Your task to perform on an android device: see tabs open on other devices in the chrome app Image 0: 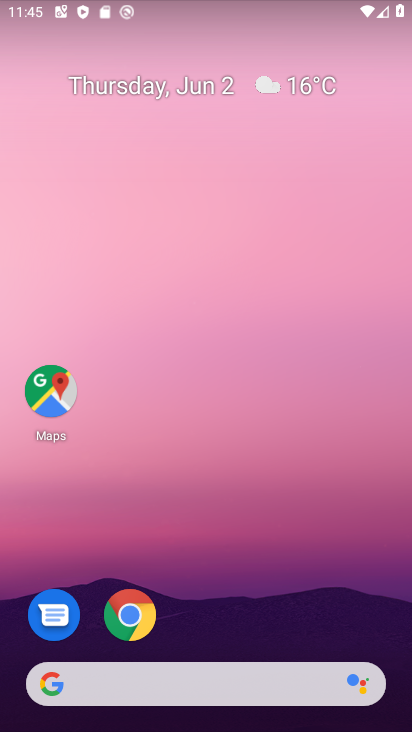
Step 0: drag from (268, 629) to (202, 242)
Your task to perform on an android device: see tabs open on other devices in the chrome app Image 1: 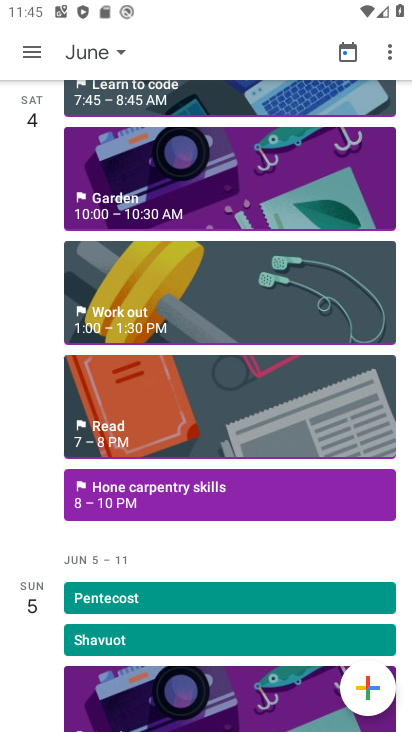
Step 1: press home button
Your task to perform on an android device: see tabs open on other devices in the chrome app Image 2: 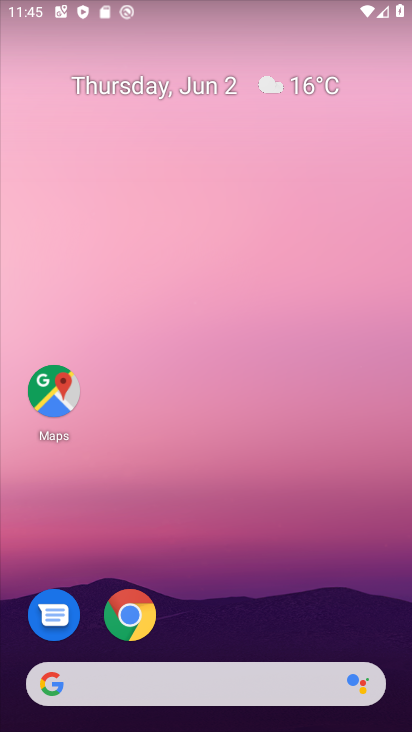
Step 2: drag from (247, 438) to (272, 189)
Your task to perform on an android device: see tabs open on other devices in the chrome app Image 3: 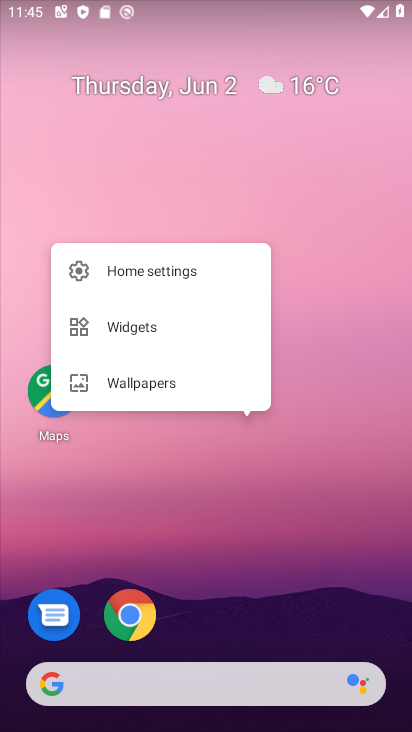
Step 3: click (226, 626)
Your task to perform on an android device: see tabs open on other devices in the chrome app Image 4: 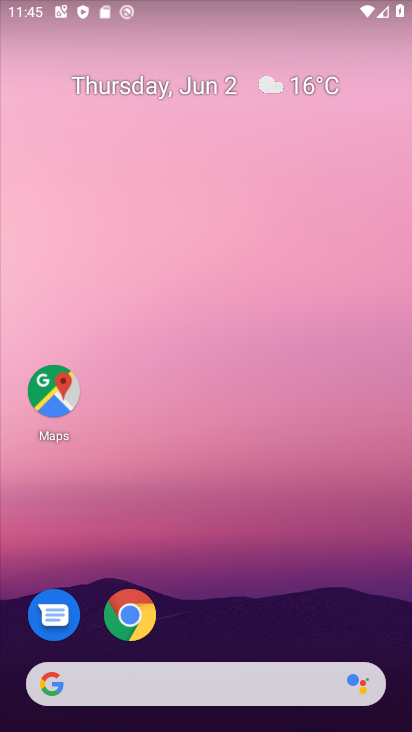
Step 4: click (122, 611)
Your task to perform on an android device: see tabs open on other devices in the chrome app Image 5: 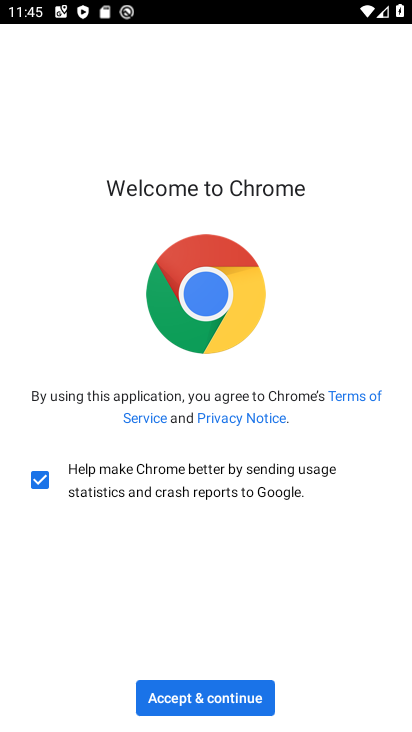
Step 5: click (173, 698)
Your task to perform on an android device: see tabs open on other devices in the chrome app Image 6: 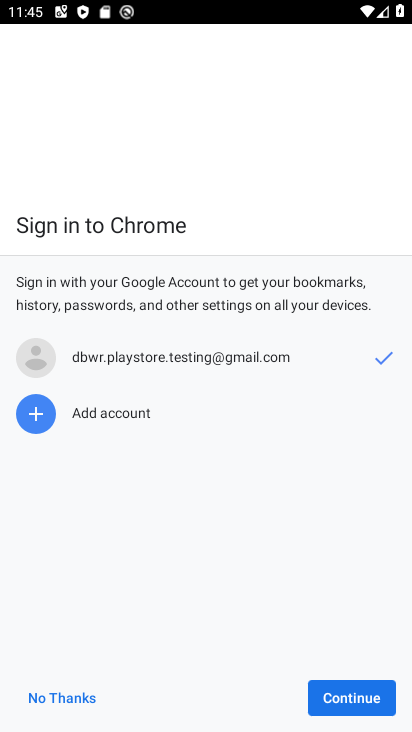
Step 6: click (328, 691)
Your task to perform on an android device: see tabs open on other devices in the chrome app Image 7: 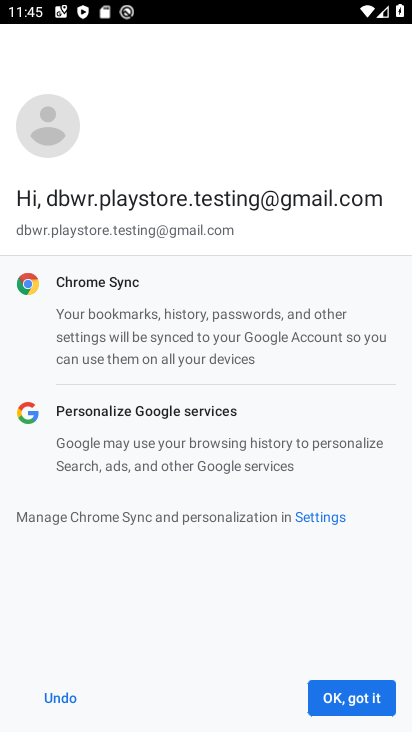
Step 7: click (331, 693)
Your task to perform on an android device: see tabs open on other devices in the chrome app Image 8: 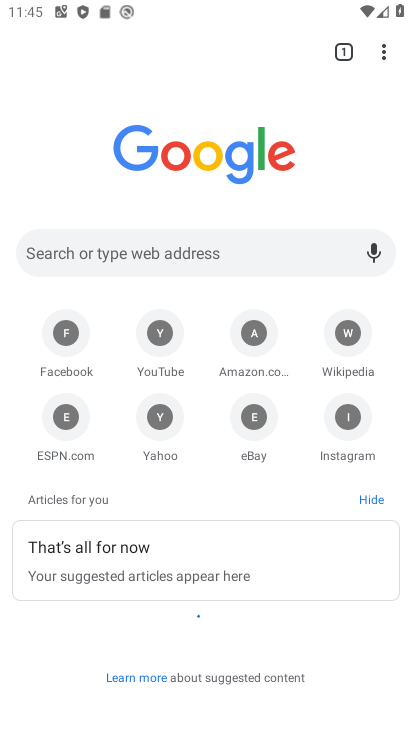
Step 8: click (387, 35)
Your task to perform on an android device: see tabs open on other devices in the chrome app Image 9: 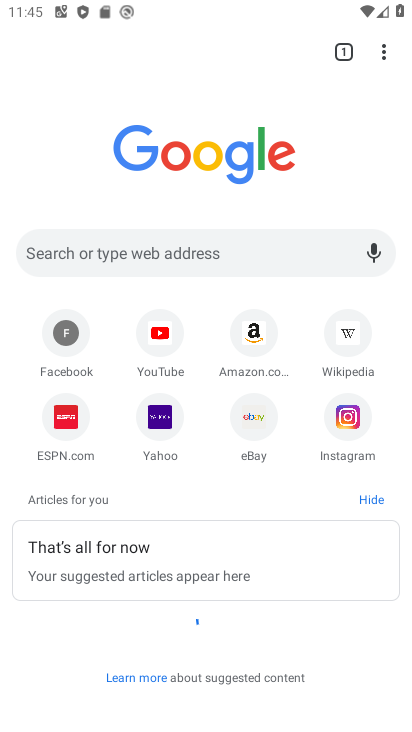
Step 9: click (382, 44)
Your task to perform on an android device: see tabs open on other devices in the chrome app Image 10: 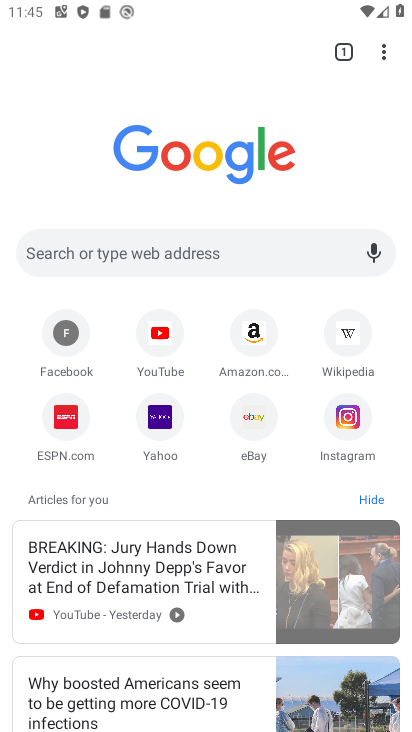
Step 10: click (382, 44)
Your task to perform on an android device: see tabs open on other devices in the chrome app Image 11: 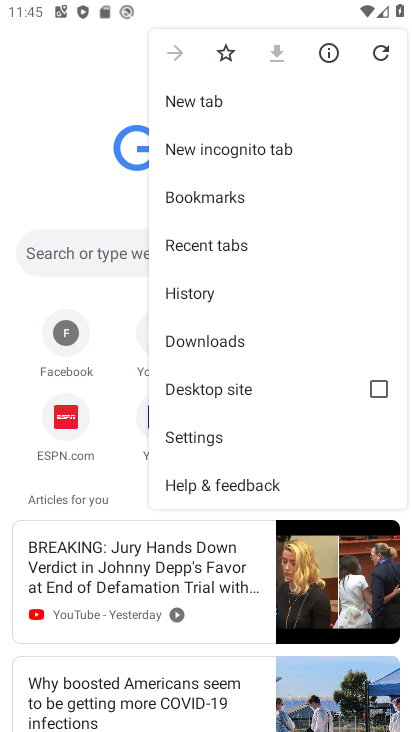
Step 11: click (207, 289)
Your task to perform on an android device: see tabs open on other devices in the chrome app Image 12: 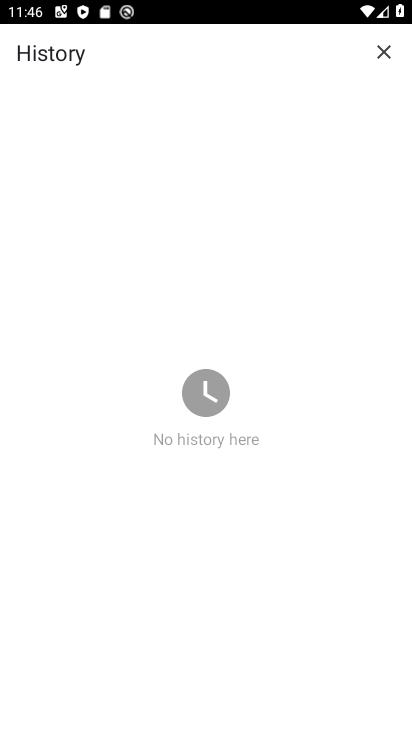
Step 12: task complete